Your task to perform on an android device: check the backup settings in the google photos Image 0: 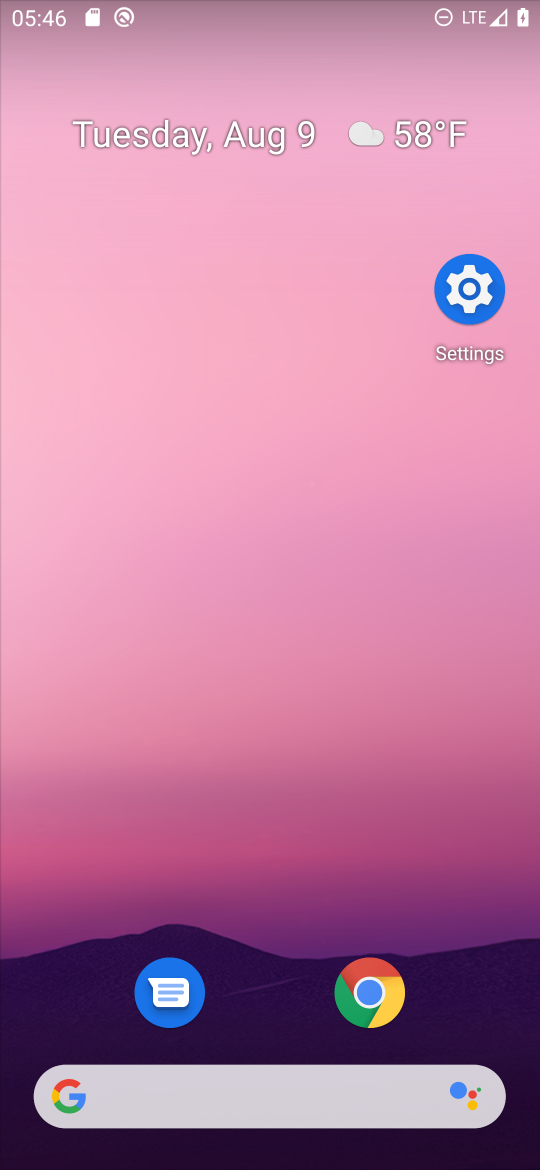
Step 0: drag from (378, 1063) to (376, 877)
Your task to perform on an android device: check the backup settings in the google photos Image 1: 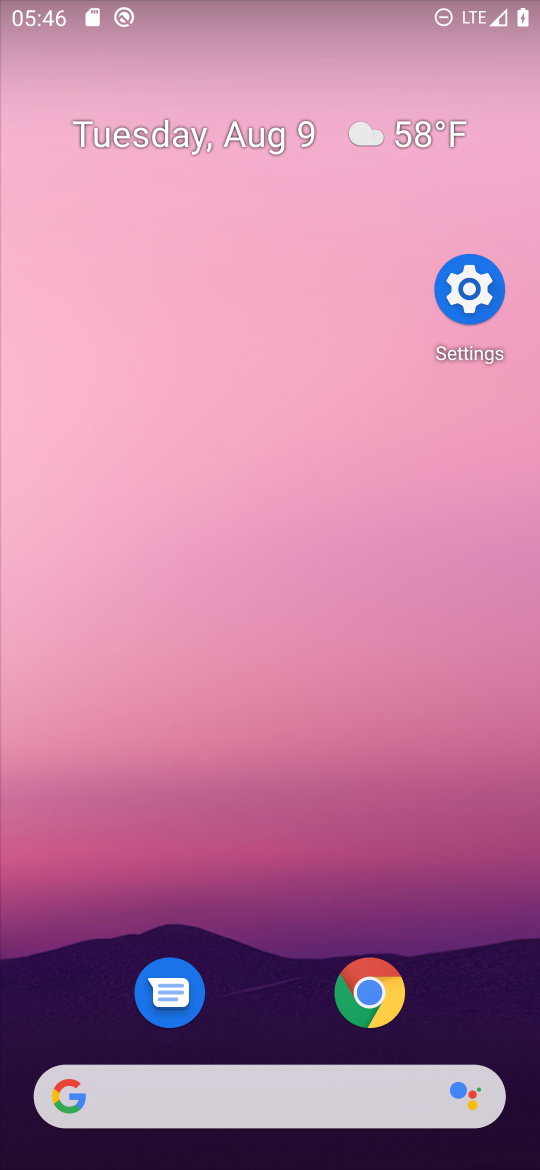
Step 1: drag from (260, 1084) to (359, 14)
Your task to perform on an android device: check the backup settings in the google photos Image 2: 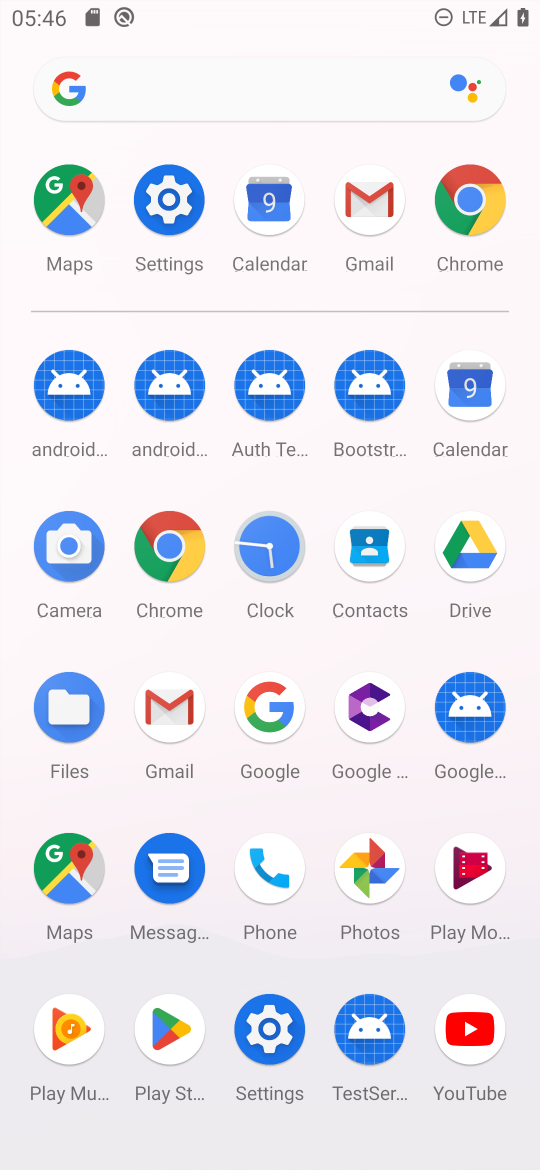
Step 2: click (376, 860)
Your task to perform on an android device: check the backup settings in the google photos Image 3: 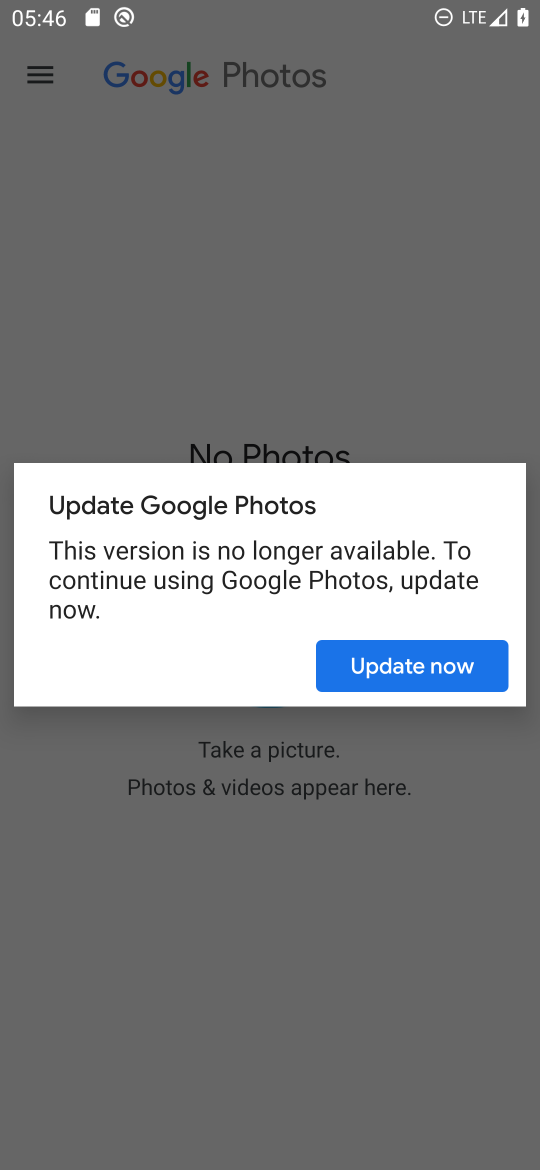
Step 3: click (359, 674)
Your task to perform on an android device: check the backup settings in the google photos Image 4: 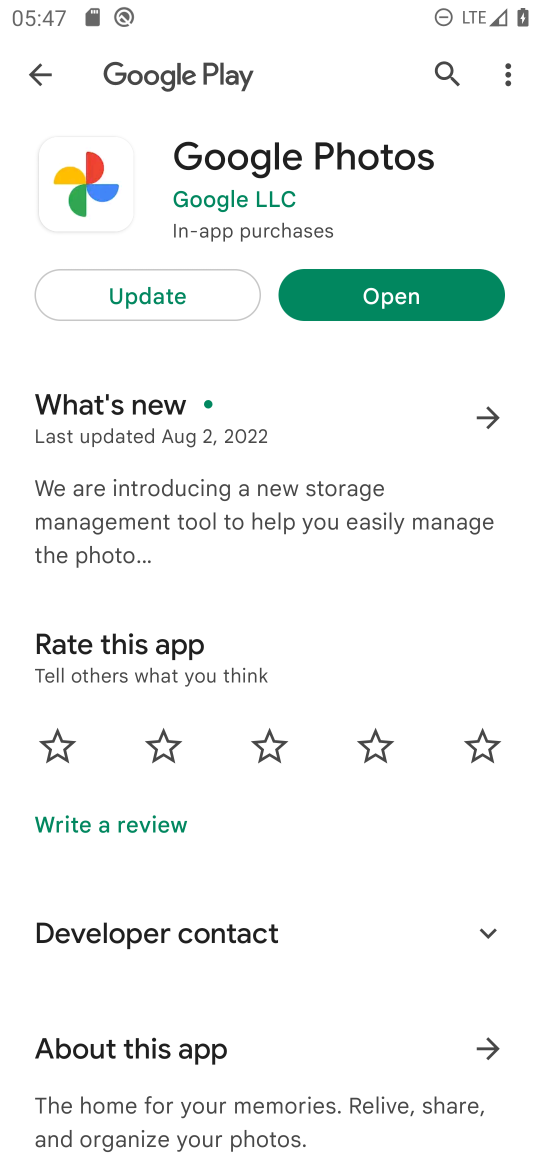
Step 4: click (167, 286)
Your task to perform on an android device: check the backup settings in the google photos Image 5: 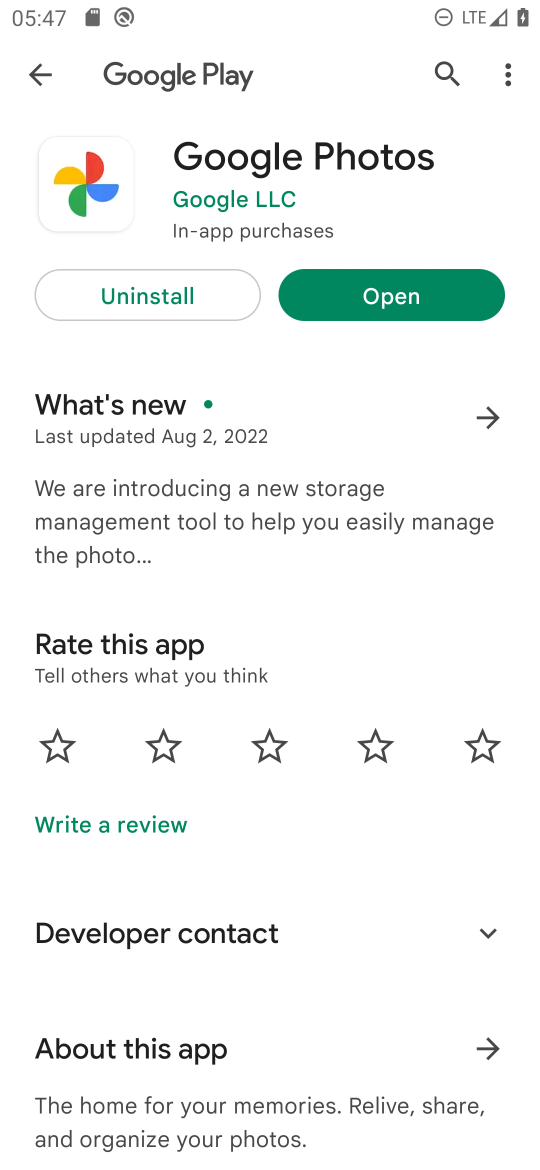
Step 5: click (466, 280)
Your task to perform on an android device: check the backup settings in the google photos Image 6: 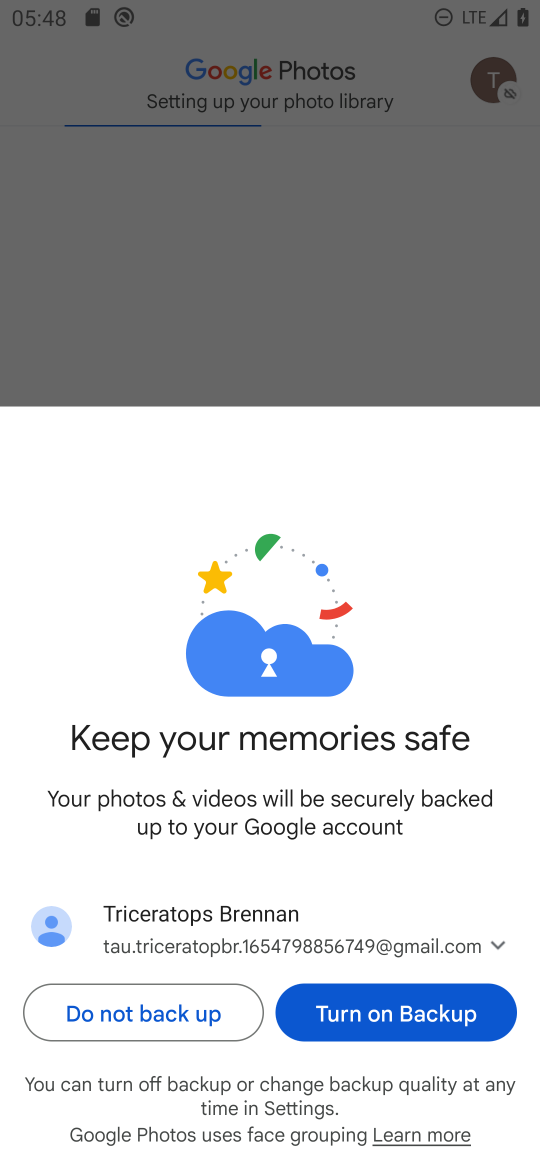
Step 6: click (337, 1007)
Your task to perform on an android device: check the backup settings in the google photos Image 7: 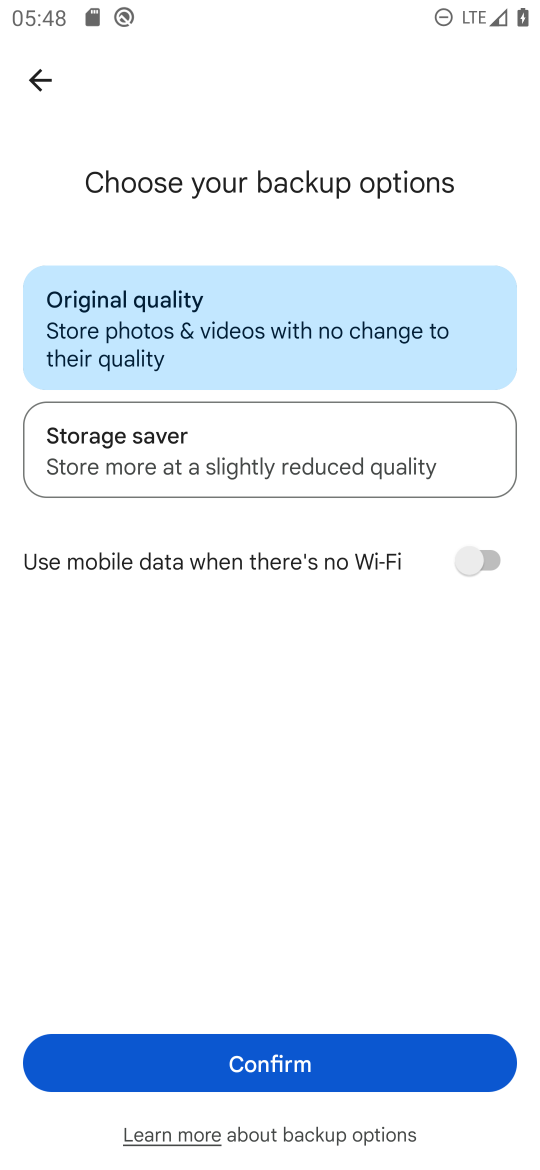
Step 7: click (337, 1007)
Your task to perform on an android device: check the backup settings in the google photos Image 8: 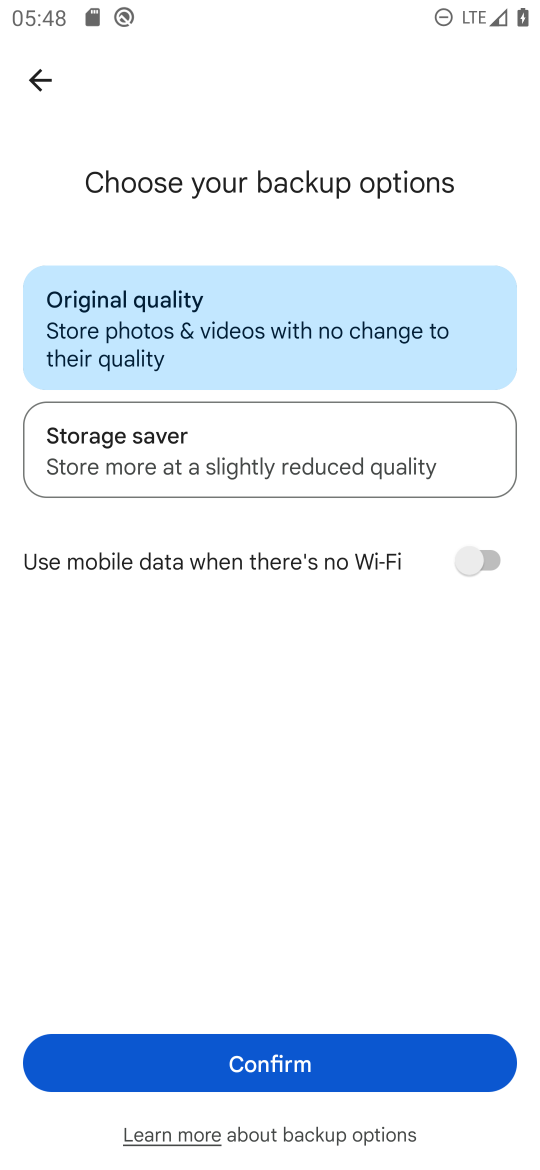
Step 8: click (337, 1007)
Your task to perform on an android device: check the backup settings in the google photos Image 9: 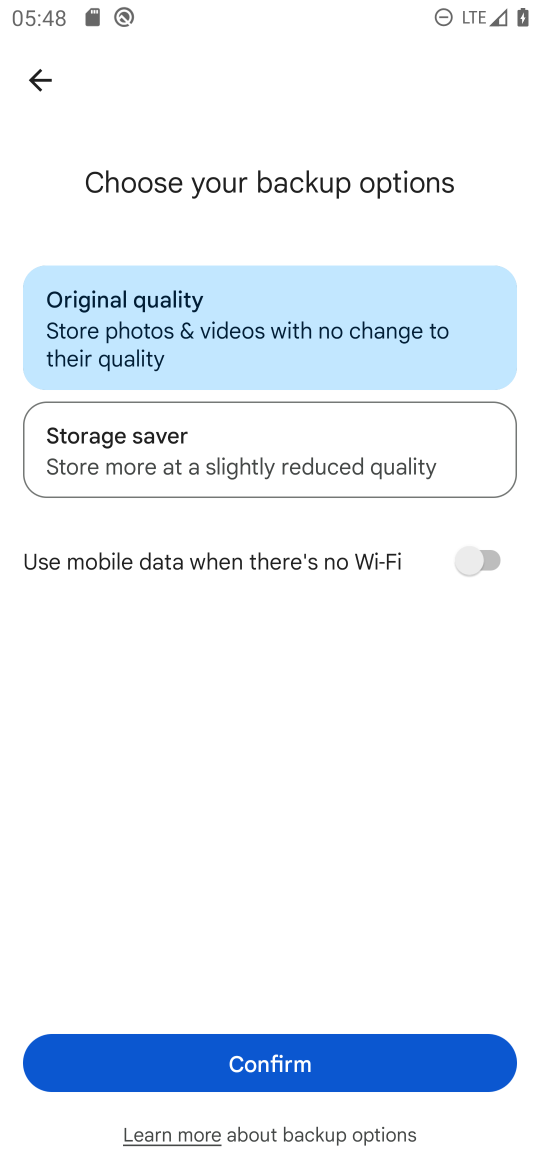
Step 9: click (293, 1057)
Your task to perform on an android device: check the backup settings in the google photos Image 10: 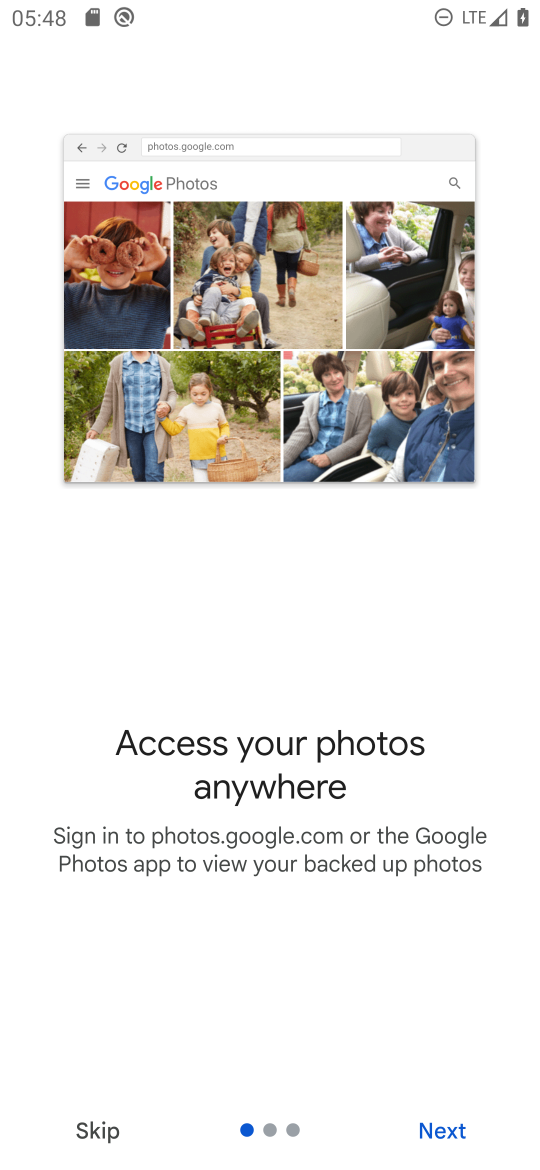
Step 10: click (293, 1057)
Your task to perform on an android device: check the backup settings in the google photos Image 11: 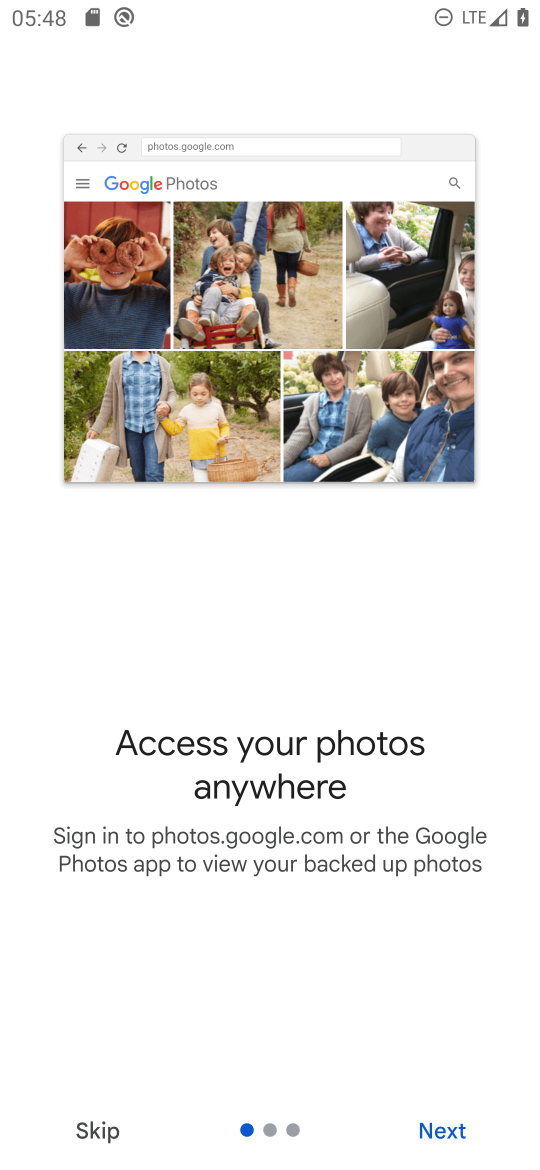
Step 11: click (293, 1057)
Your task to perform on an android device: check the backup settings in the google photos Image 12: 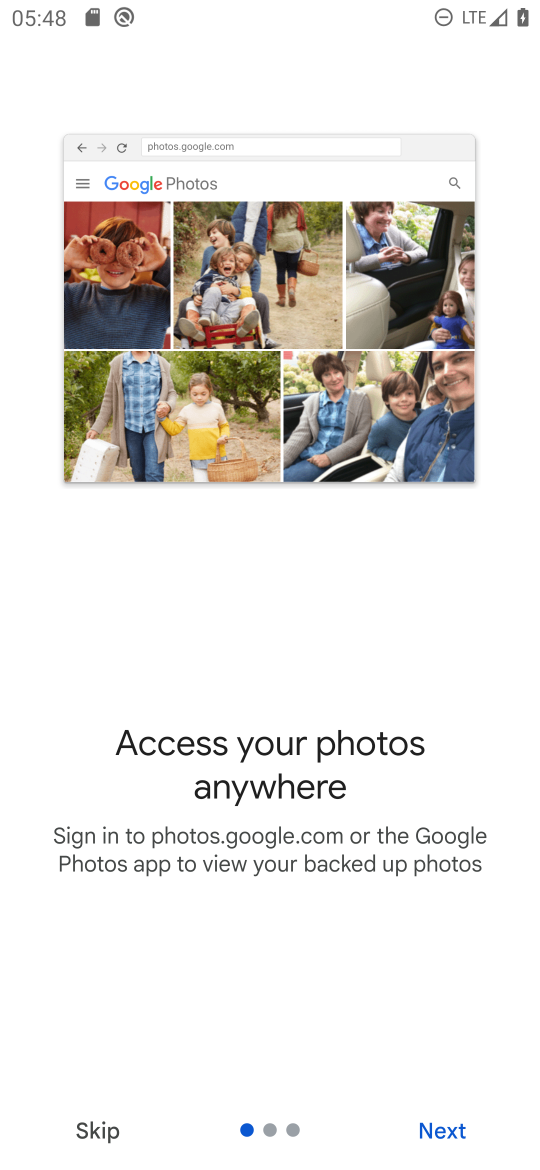
Step 12: click (293, 1057)
Your task to perform on an android device: check the backup settings in the google photos Image 13: 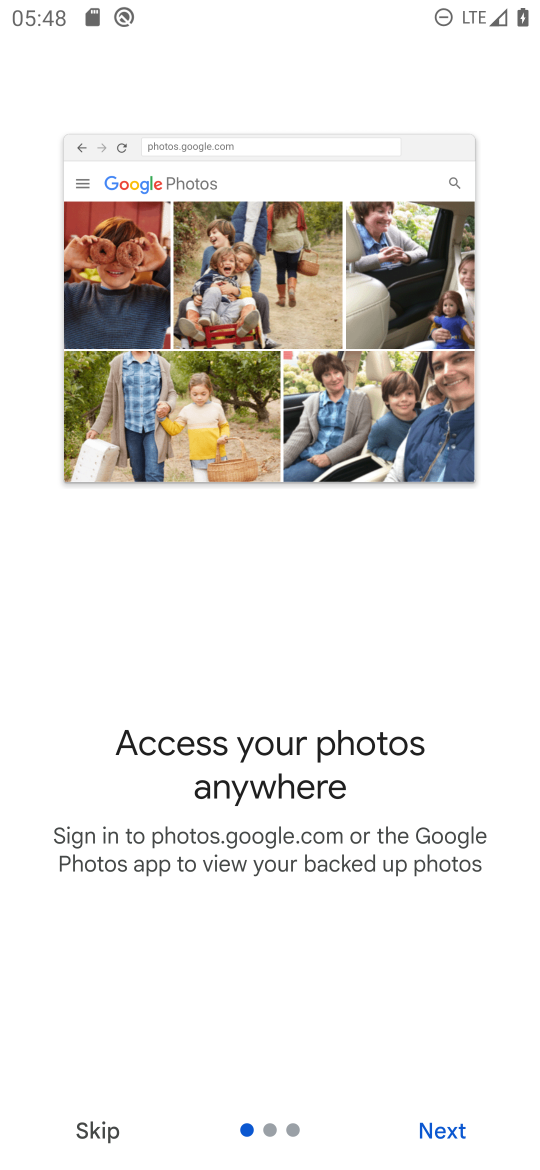
Step 13: click (293, 1057)
Your task to perform on an android device: check the backup settings in the google photos Image 14: 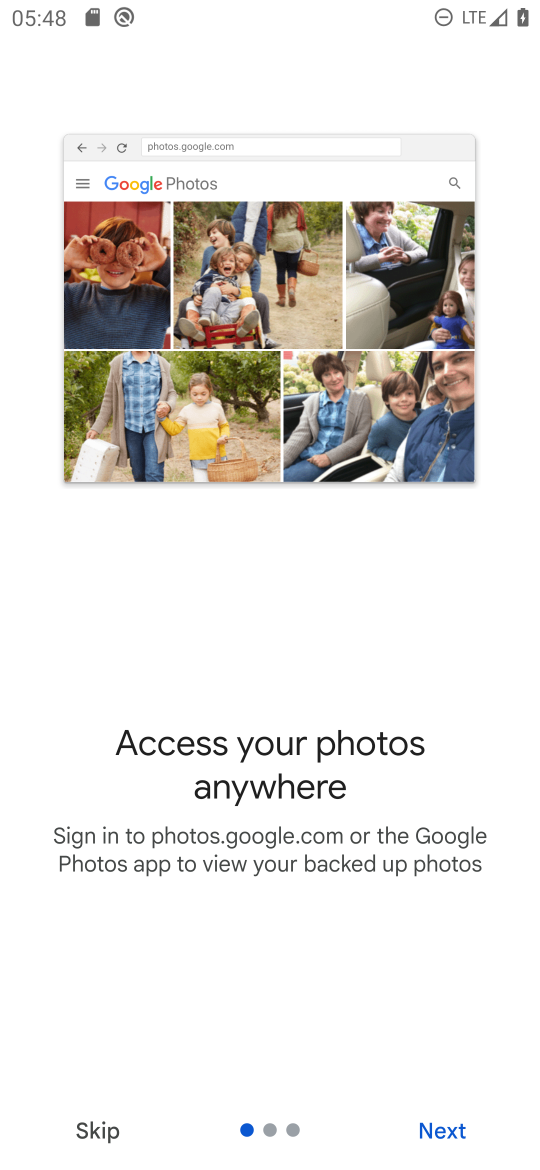
Step 14: click (437, 1120)
Your task to perform on an android device: check the backup settings in the google photos Image 15: 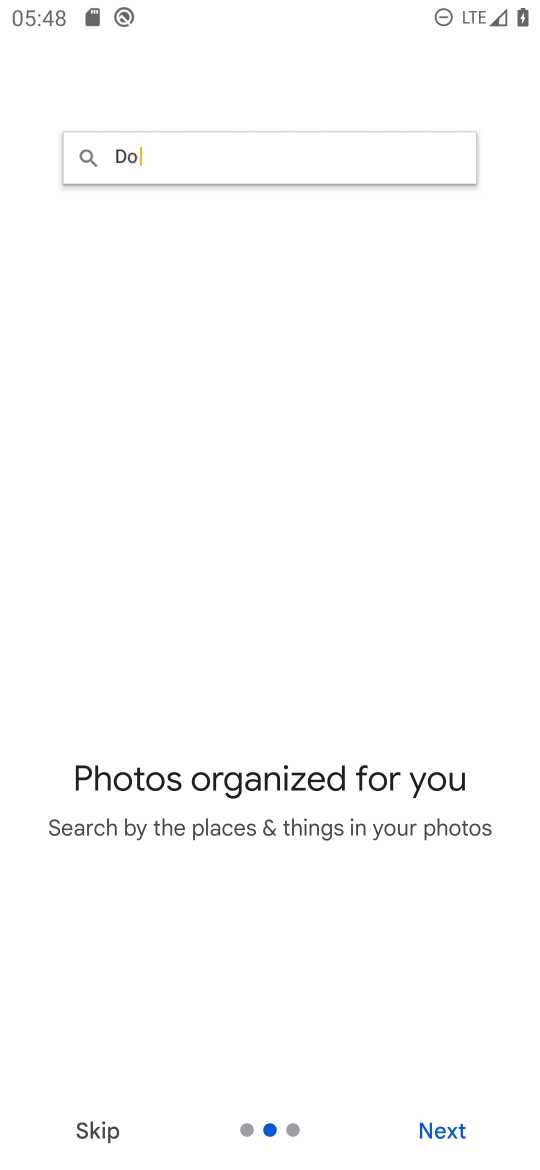
Step 15: click (437, 1120)
Your task to perform on an android device: check the backup settings in the google photos Image 16: 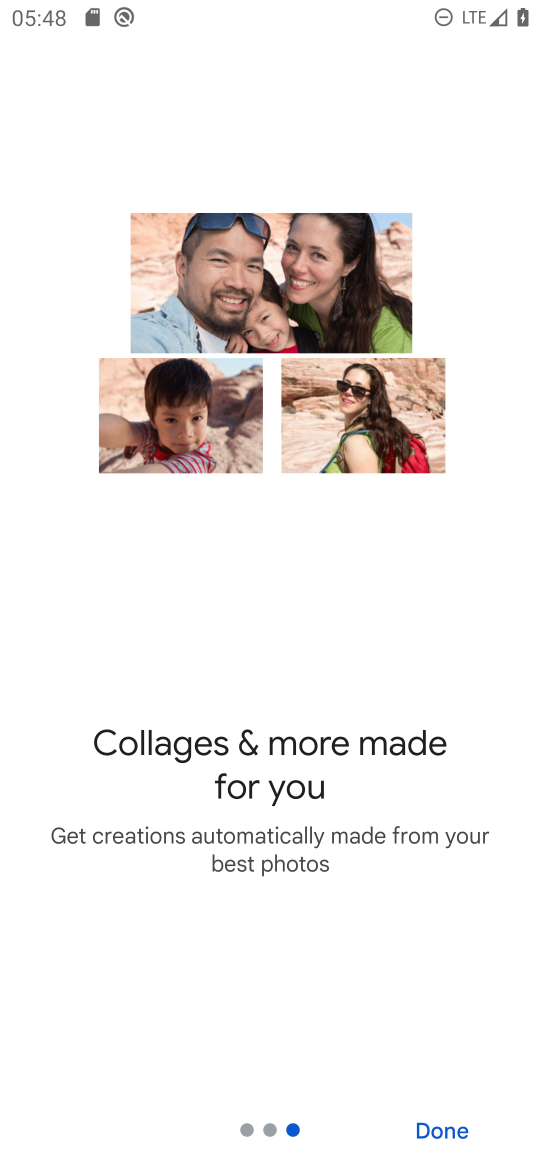
Step 16: click (437, 1120)
Your task to perform on an android device: check the backup settings in the google photos Image 17: 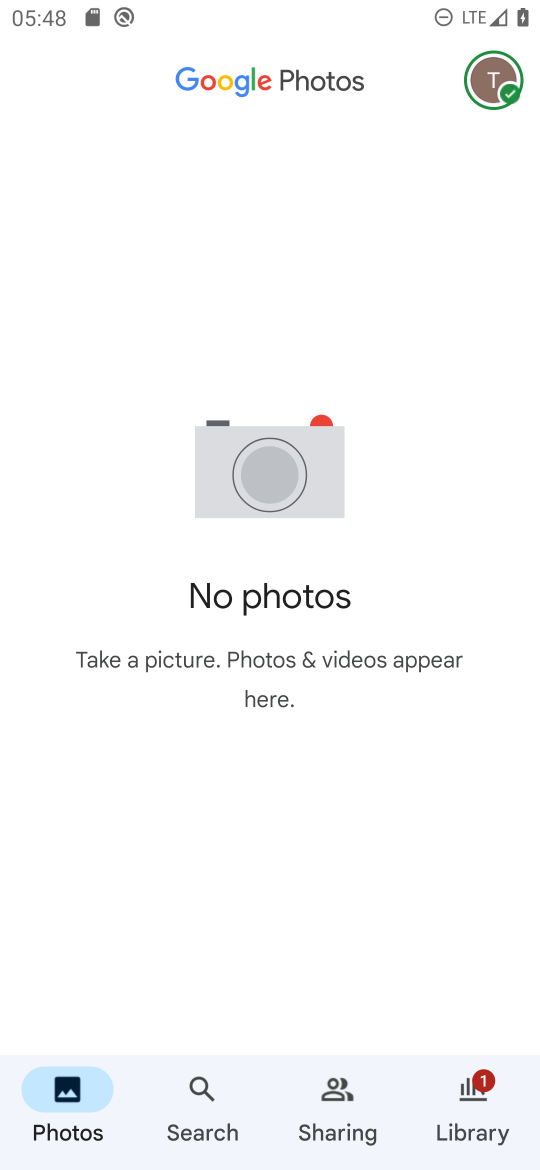
Step 17: click (498, 76)
Your task to perform on an android device: check the backup settings in the google photos Image 18: 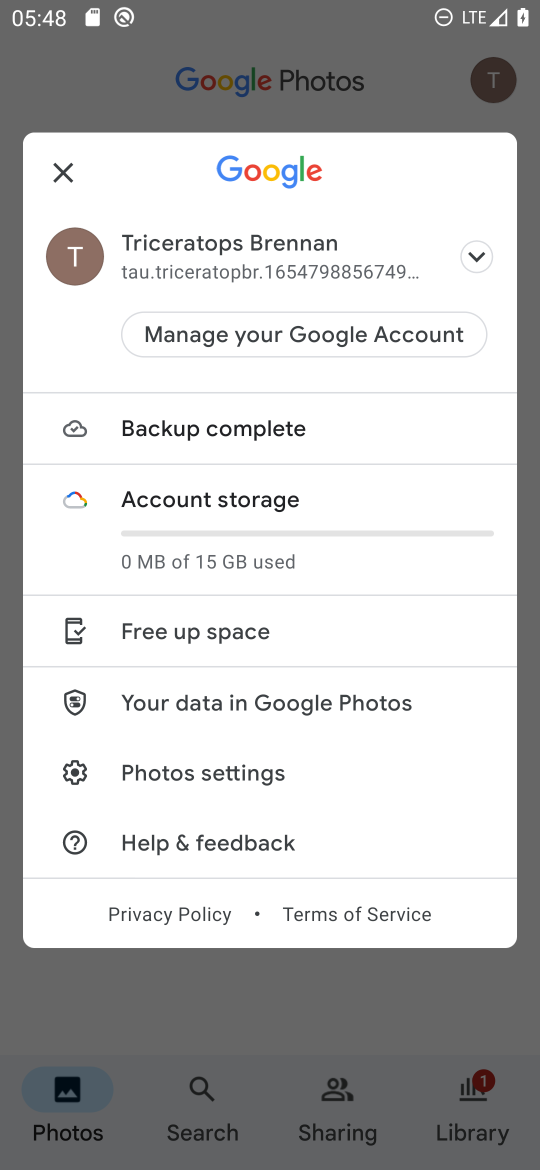
Step 18: click (245, 766)
Your task to perform on an android device: check the backup settings in the google photos Image 19: 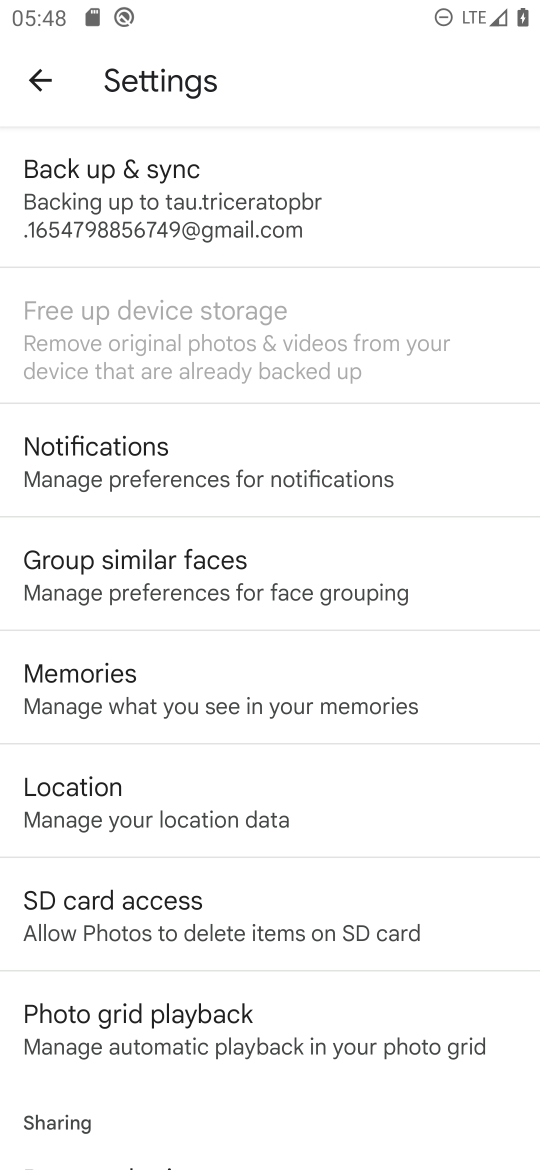
Step 19: click (198, 175)
Your task to perform on an android device: check the backup settings in the google photos Image 20: 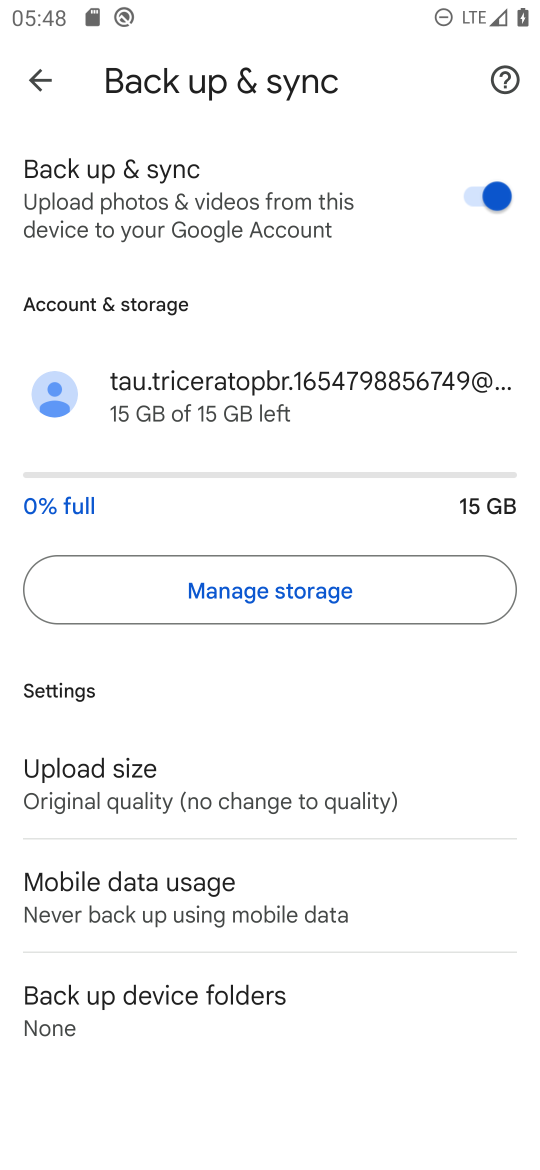
Step 20: task complete